Your task to perform on an android device: Open internet settings Image 0: 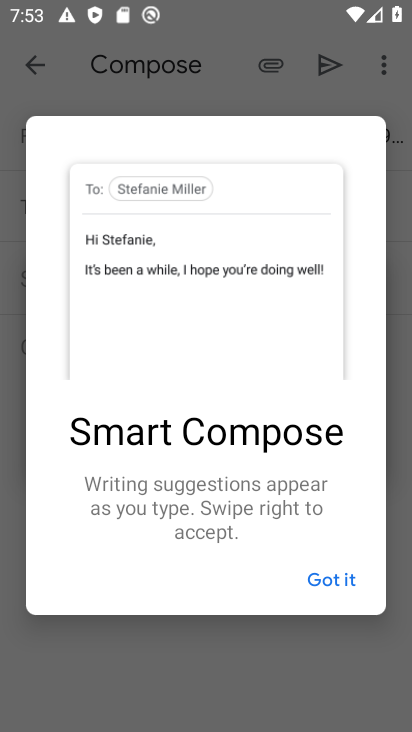
Step 0: press home button
Your task to perform on an android device: Open internet settings Image 1: 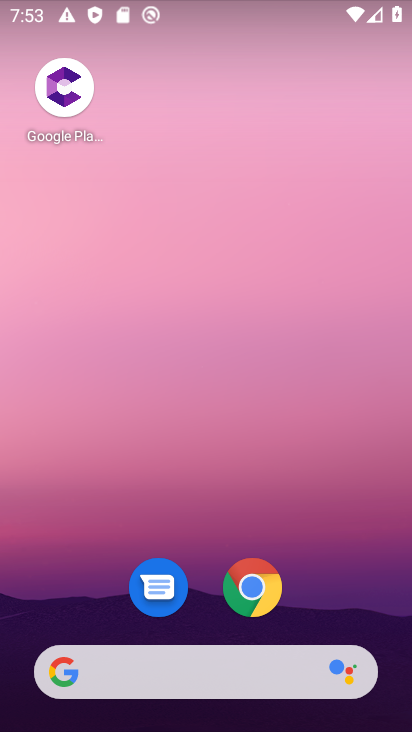
Step 1: drag from (10, 687) to (126, 174)
Your task to perform on an android device: Open internet settings Image 2: 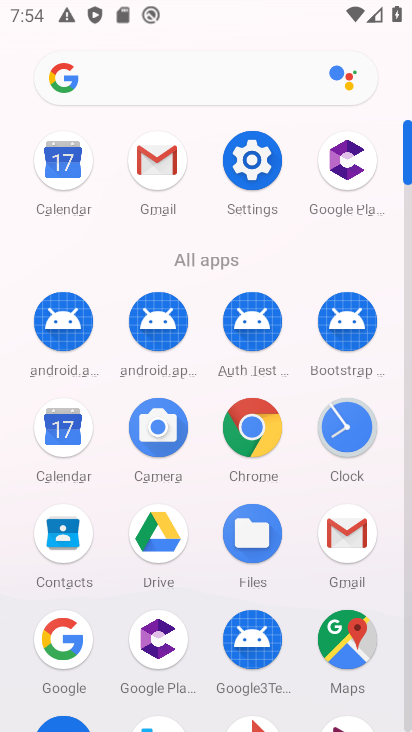
Step 2: click (256, 148)
Your task to perform on an android device: Open internet settings Image 3: 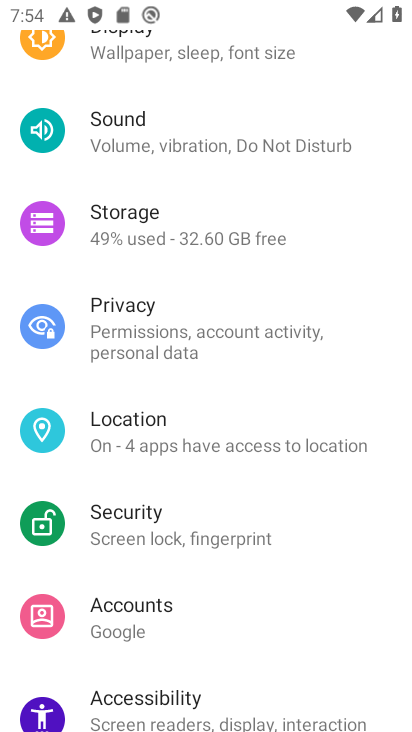
Step 3: drag from (345, 52) to (311, 543)
Your task to perform on an android device: Open internet settings Image 4: 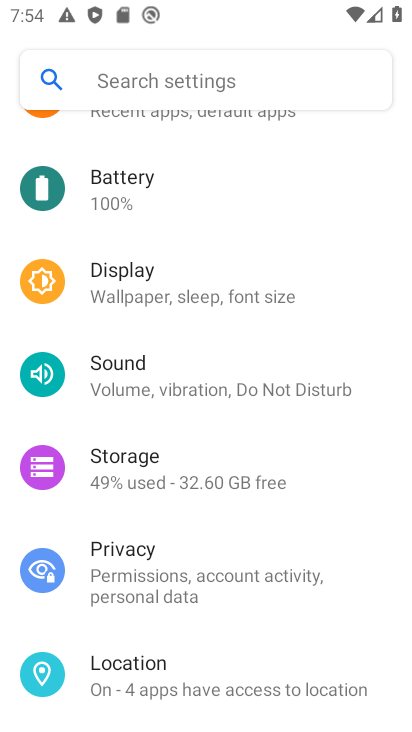
Step 4: drag from (345, 130) to (359, 552)
Your task to perform on an android device: Open internet settings Image 5: 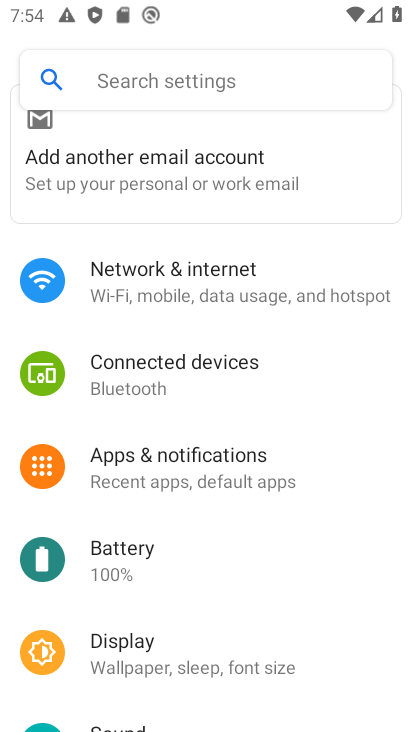
Step 5: click (176, 279)
Your task to perform on an android device: Open internet settings Image 6: 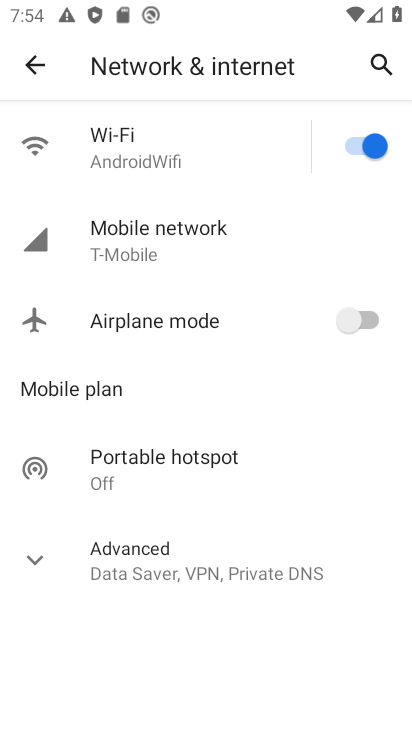
Step 6: task complete